Your task to perform on an android device: star an email in the gmail app Image 0: 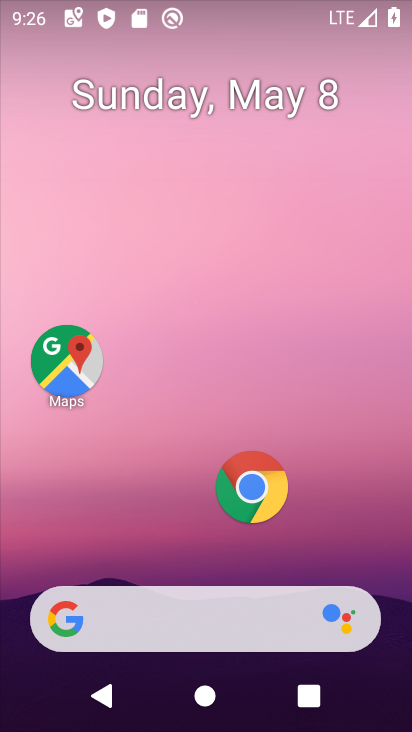
Step 0: drag from (174, 554) to (247, 28)
Your task to perform on an android device: star an email in the gmail app Image 1: 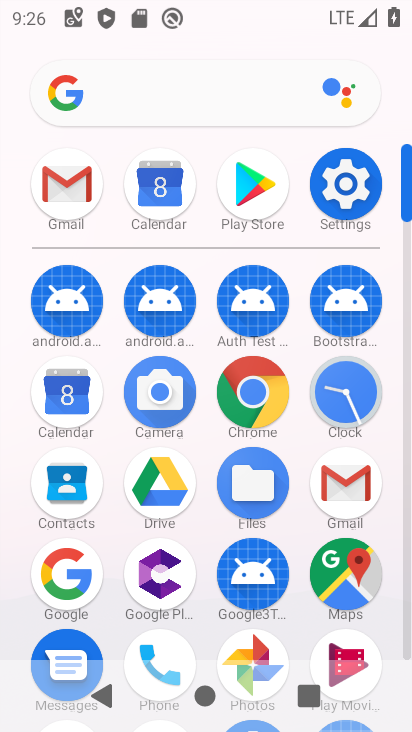
Step 1: click (74, 183)
Your task to perform on an android device: star an email in the gmail app Image 2: 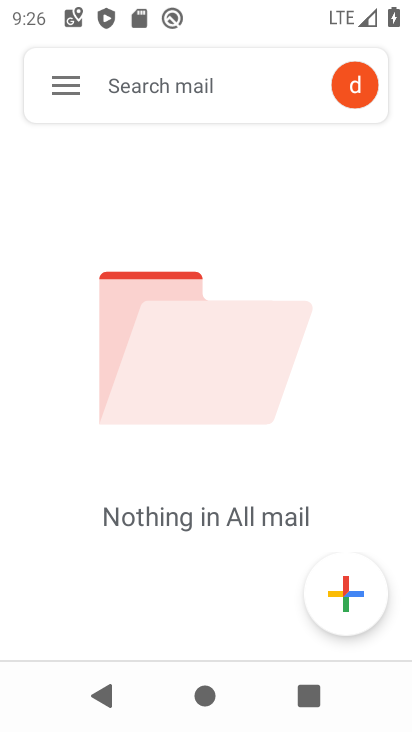
Step 2: task complete